Your task to perform on an android device: turn off airplane mode Image 0: 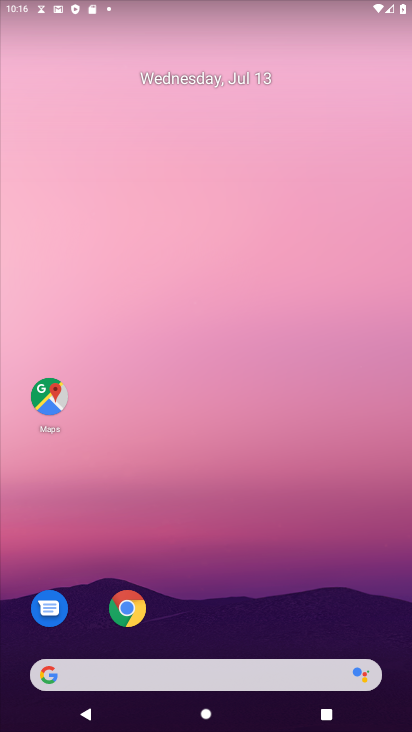
Step 0: drag from (194, 616) to (172, 55)
Your task to perform on an android device: turn off airplane mode Image 1: 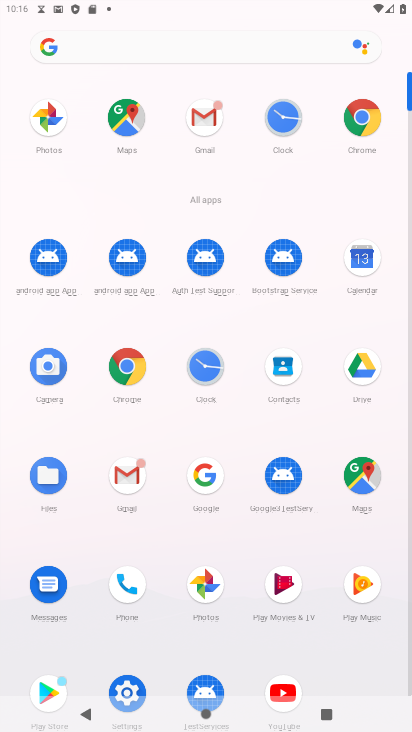
Step 1: click (134, 691)
Your task to perform on an android device: turn off airplane mode Image 2: 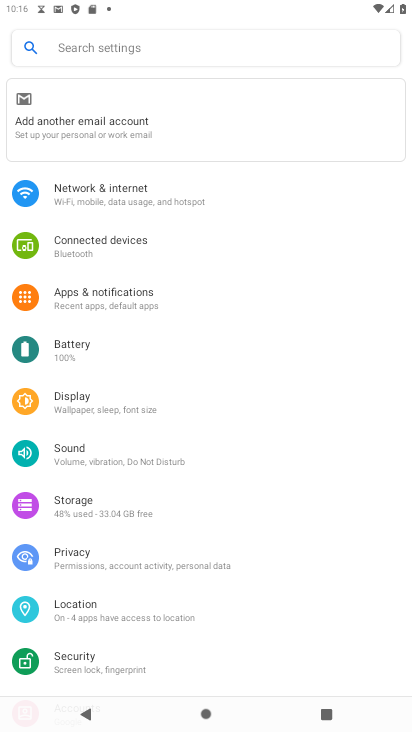
Step 2: click (148, 189)
Your task to perform on an android device: turn off airplane mode Image 3: 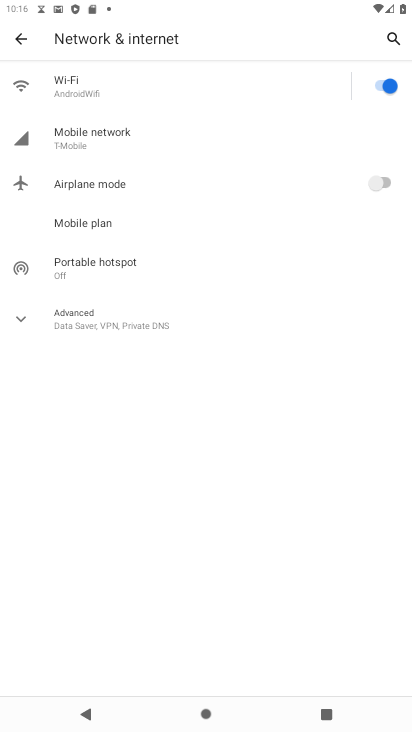
Step 3: task complete